Your task to perform on an android device: Check the new Jordans on Nike. Image 0: 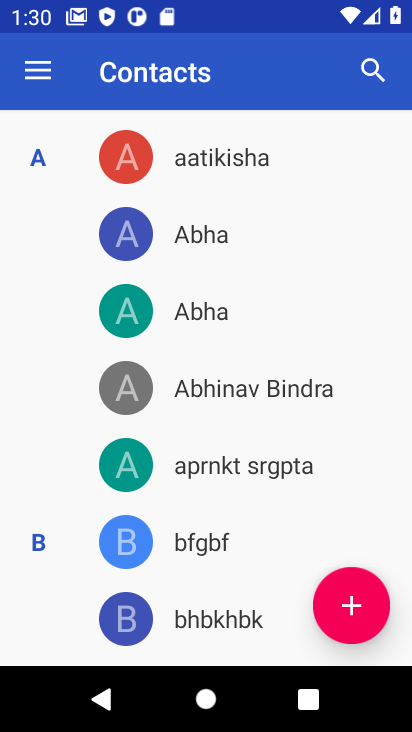
Step 0: press home button
Your task to perform on an android device: Check the new Jordans on Nike. Image 1: 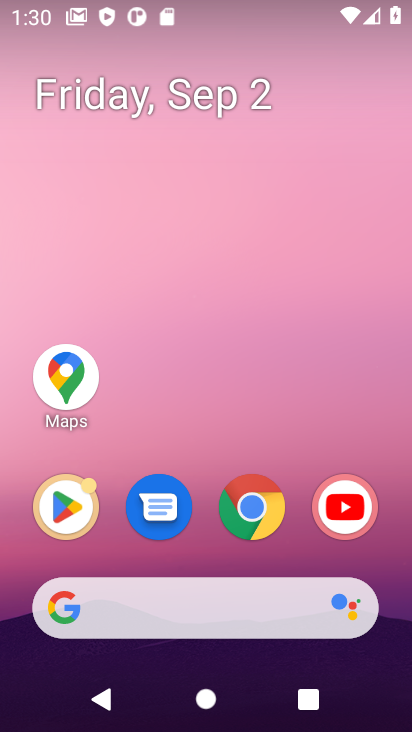
Step 1: click (275, 511)
Your task to perform on an android device: Check the new Jordans on Nike. Image 2: 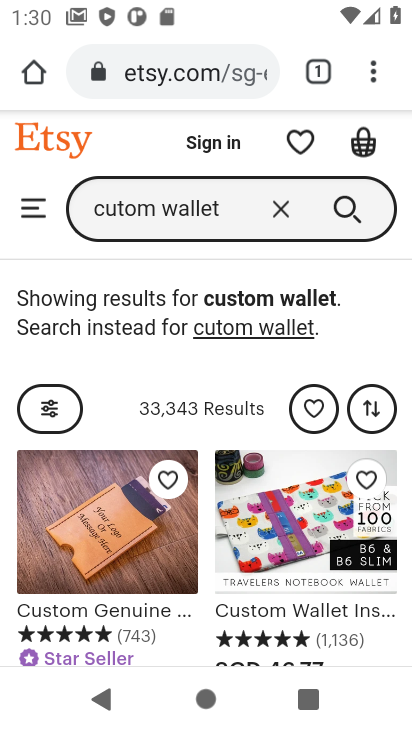
Step 2: click (281, 216)
Your task to perform on an android device: Check the new Jordans on Nike. Image 3: 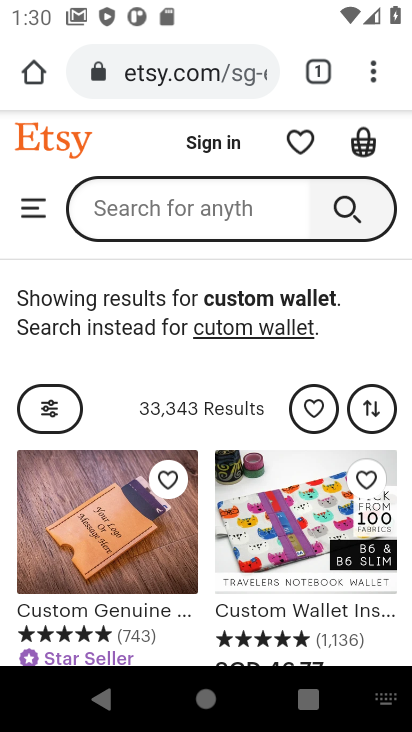
Step 3: click (228, 78)
Your task to perform on an android device: Check the new Jordans on Nike. Image 4: 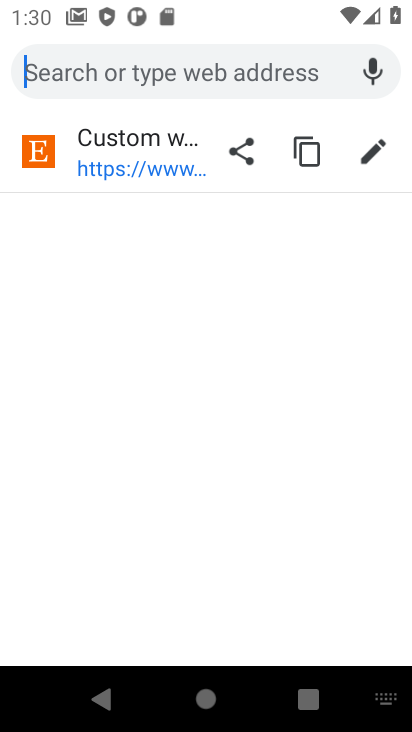
Step 4: type "nike.com"
Your task to perform on an android device: Check the new Jordans on Nike. Image 5: 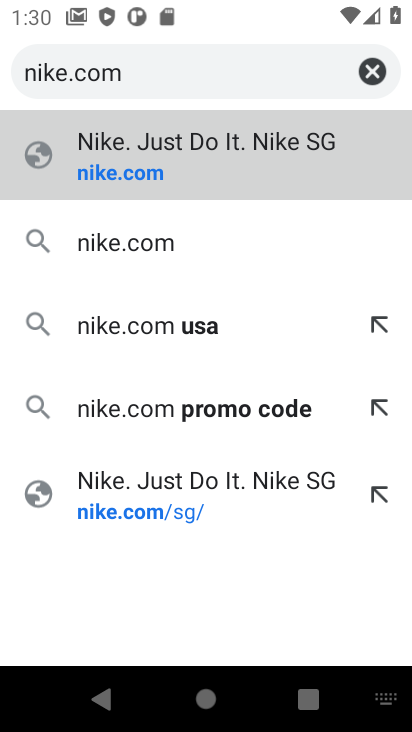
Step 5: click (125, 146)
Your task to perform on an android device: Check the new Jordans on Nike. Image 6: 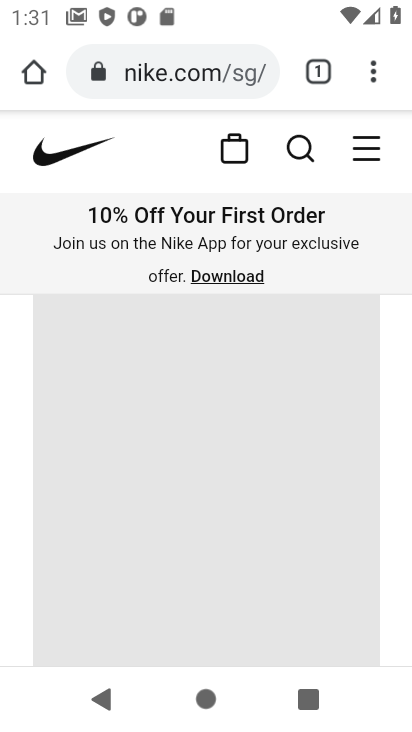
Step 6: click (289, 156)
Your task to perform on an android device: Check the new Jordans on Nike. Image 7: 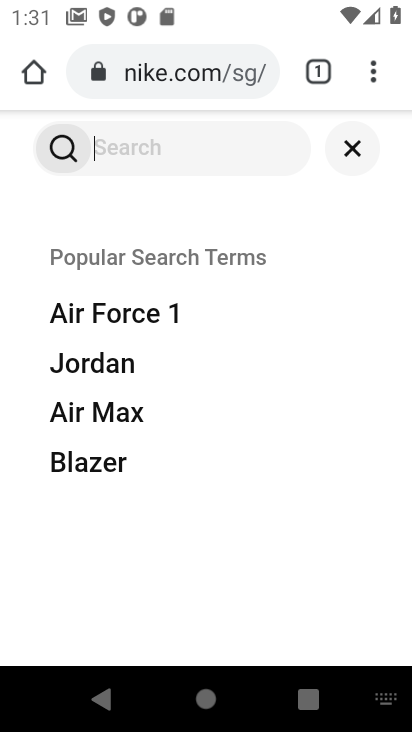
Step 7: type "new jordan"
Your task to perform on an android device: Check the new Jordans on Nike. Image 8: 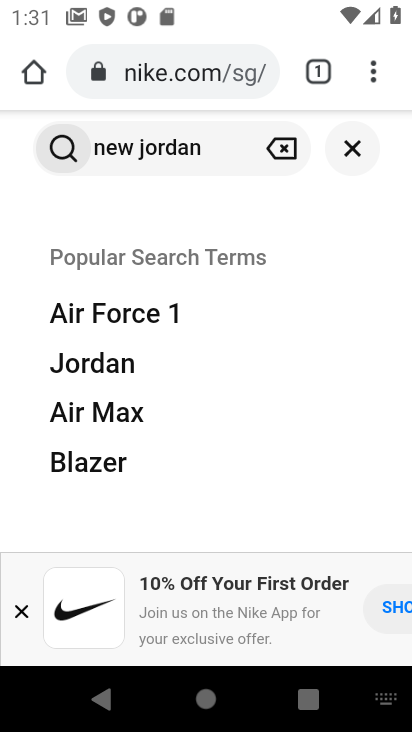
Step 8: click (223, 134)
Your task to perform on an android device: Check the new Jordans on Nike. Image 9: 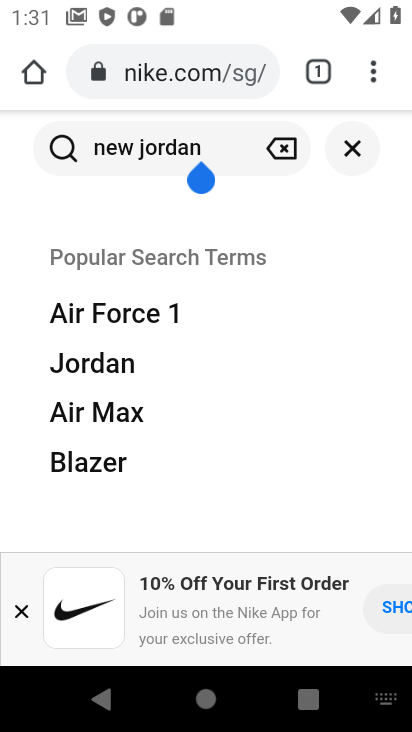
Step 9: click (331, 151)
Your task to perform on an android device: Check the new Jordans on Nike. Image 10: 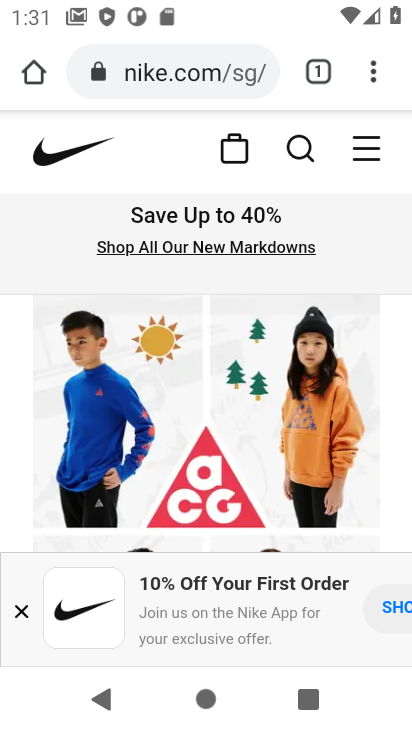
Step 10: task complete